Your task to perform on an android device: open app "Google Maps" (install if not already installed) Image 0: 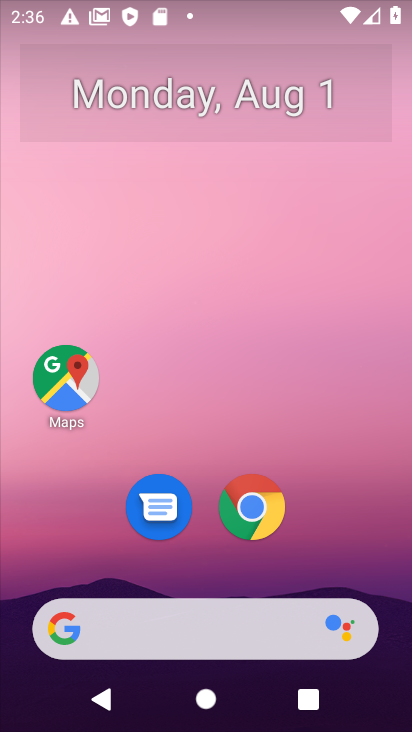
Step 0: drag from (351, 560) to (341, 0)
Your task to perform on an android device: open app "Google Maps" (install if not already installed) Image 1: 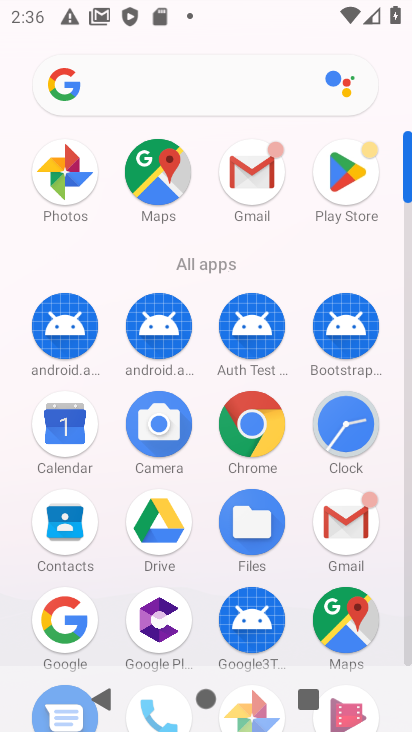
Step 1: click (338, 168)
Your task to perform on an android device: open app "Google Maps" (install if not already installed) Image 2: 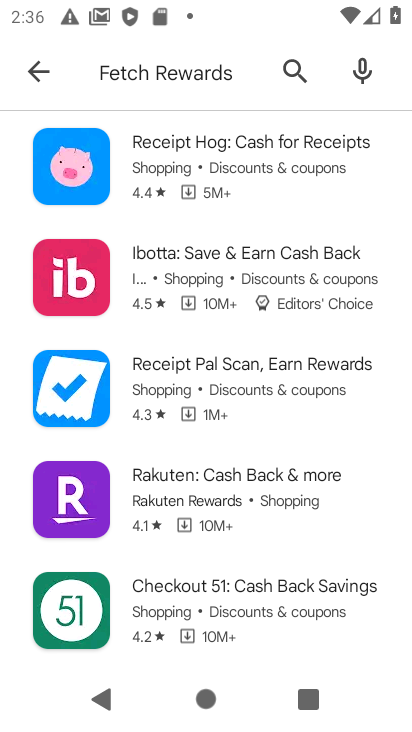
Step 2: click (217, 72)
Your task to perform on an android device: open app "Google Maps" (install if not already installed) Image 3: 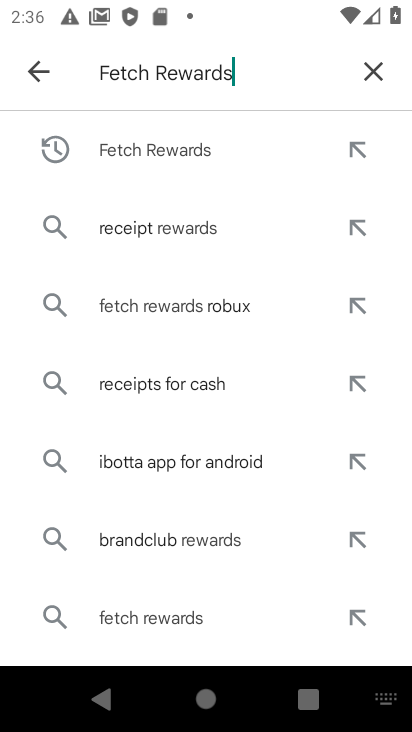
Step 3: click (378, 73)
Your task to perform on an android device: open app "Google Maps" (install if not already installed) Image 4: 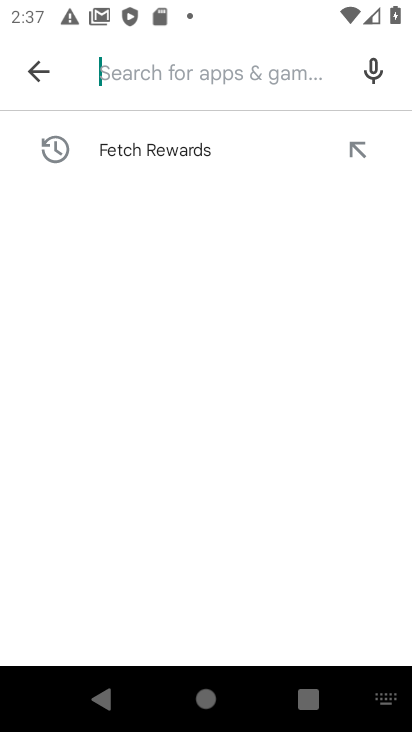
Step 4: type "Google Maps"
Your task to perform on an android device: open app "Google Maps" (install if not already installed) Image 5: 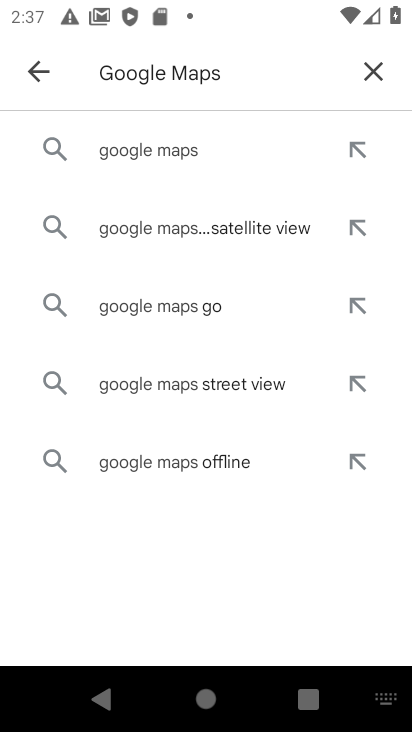
Step 5: press enter
Your task to perform on an android device: open app "Google Maps" (install if not already installed) Image 6: 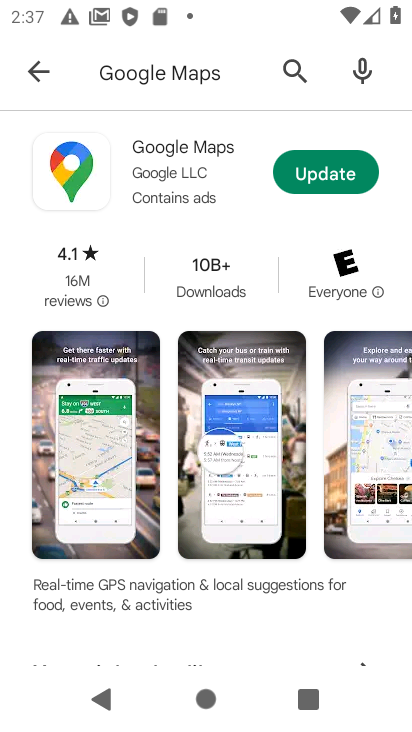
Step 6: click (138, 168)
Your task to perform on an android device: open app "Google Maps" (install if not already installed) Image 7: 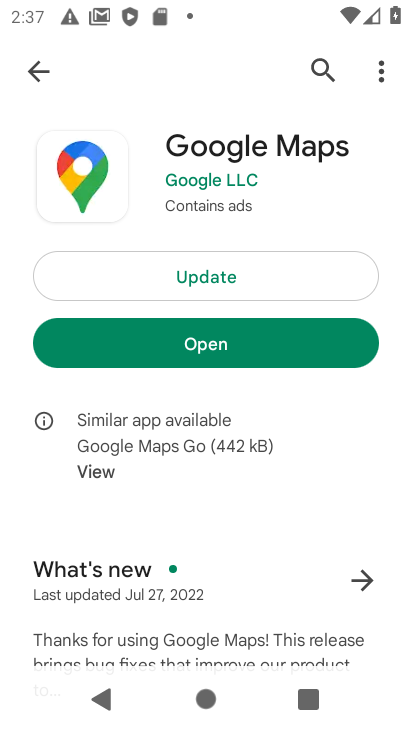
Step 7: click (275, 357)
Your task to perform on an android device: open app "Google Maps" (install if not already installed) Image 8: 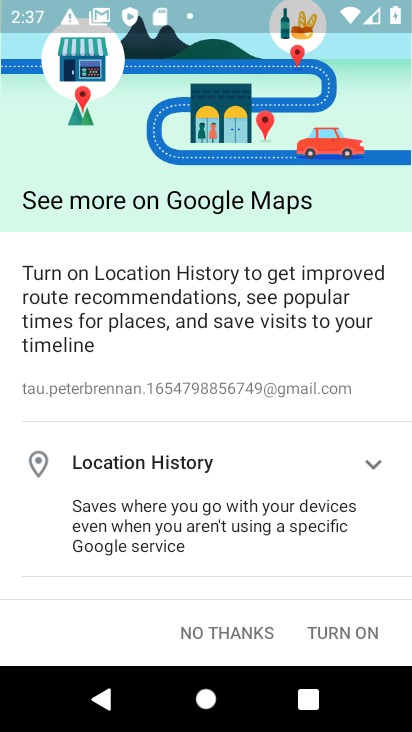
Step 8: click (207, 626)
Your task to perform on an android device: open app "Google Maps" (install if not already installed) Image 9: 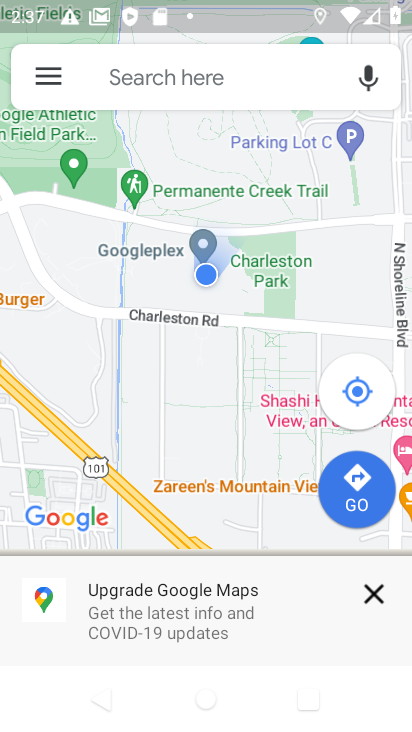
Step 9: task complete